Your task to perform on an android device: change notification settings in the gmail app Image 0: 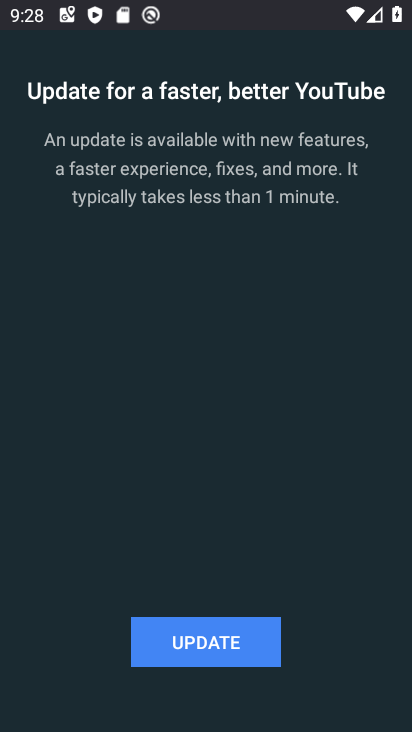
Step 0: press home button
Your task to perform on an android device: change notification settings in the gmail app Image 1: 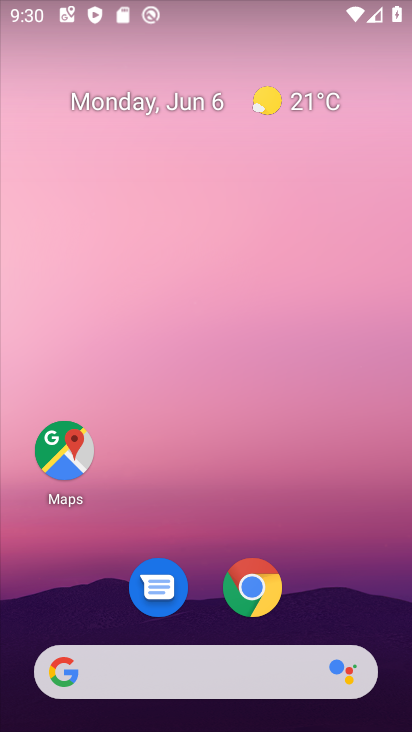
Step 1: drag from (160, 717) to (80, 124)
Your task to perform on an android device: change notification settings in the gmail app Image 2: 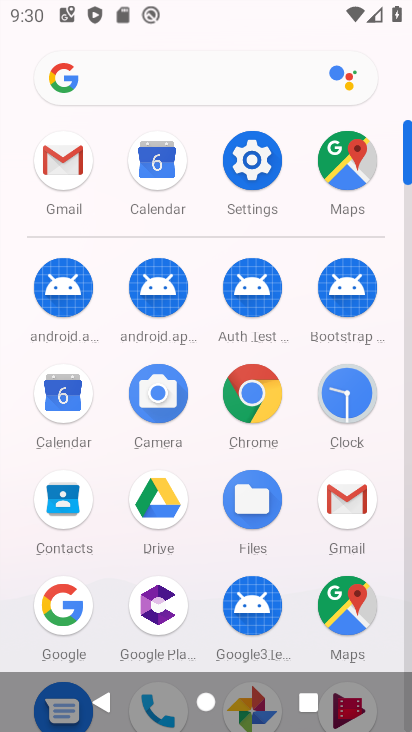
Step 2: click (342, 527)
Your task to perform on an android device: change notification settings in the gmail app Image 3: 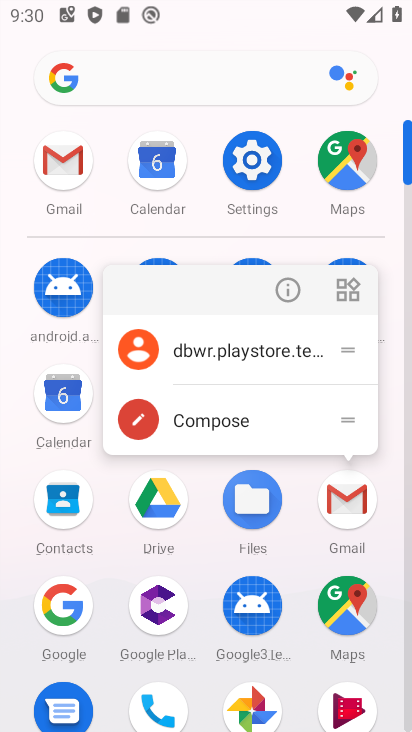
Step 3: click (272, 295)
Your task to perform on an android device: change notification settings in the gmail app Image 4: 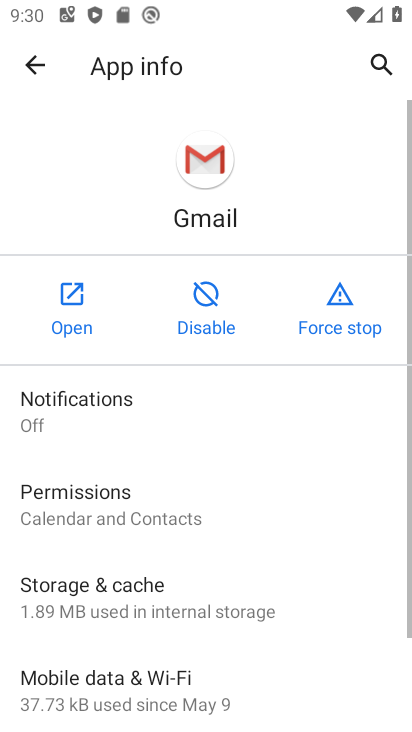
Step 4: click (126, 431)
Your task to perform on an android device: change notification settings in the gmail app Image 5: 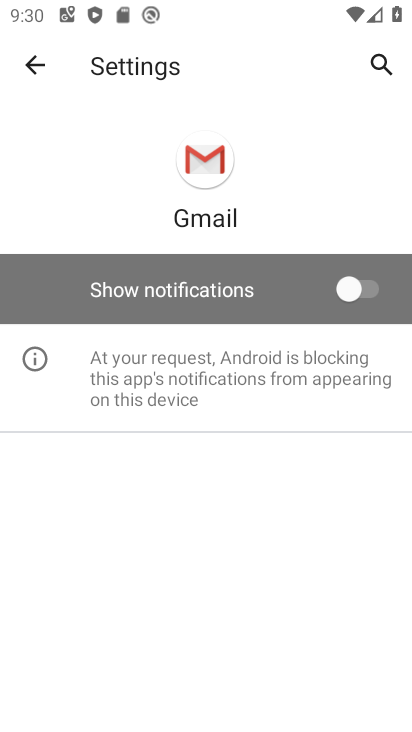
Step 5: click (338, 302)
Your task to perform on an android device: change notification settings in the gmail app Image 6: 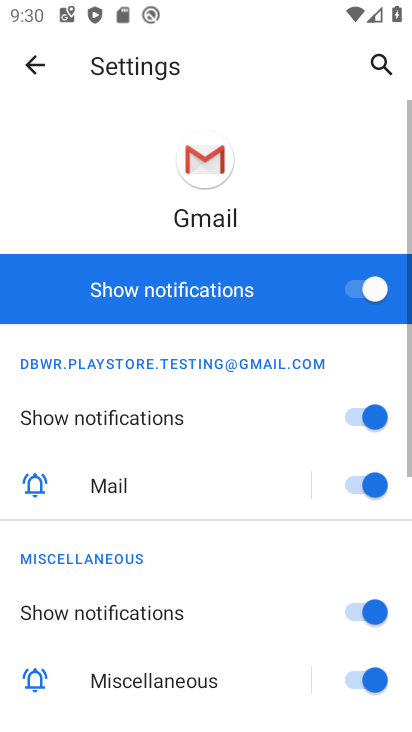
Step 6: task complete